Your task to perform on an android device: Open the map Image 0: 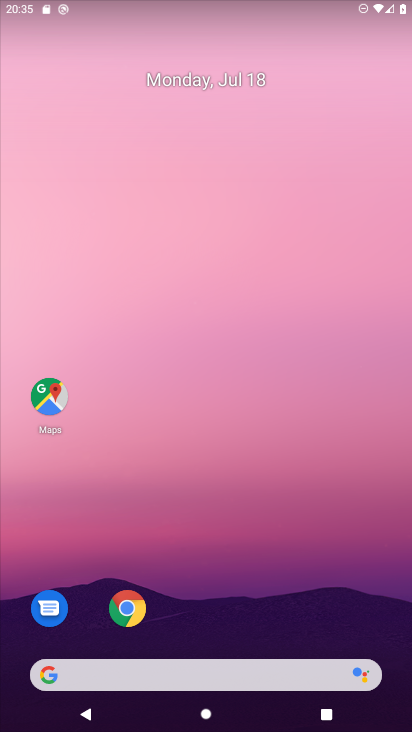
Step 0: click (50, 398)
Your task to perform on an android device: Open the map Image 1: 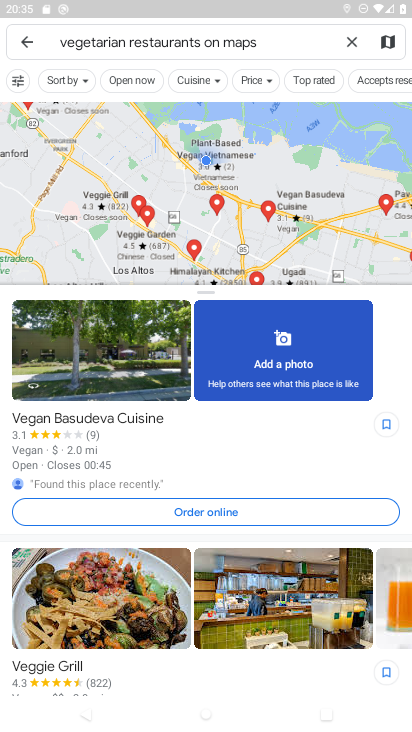
Step 1: task complete